Your task to perform on an android device: Open Chrome and go to settings Image 0: 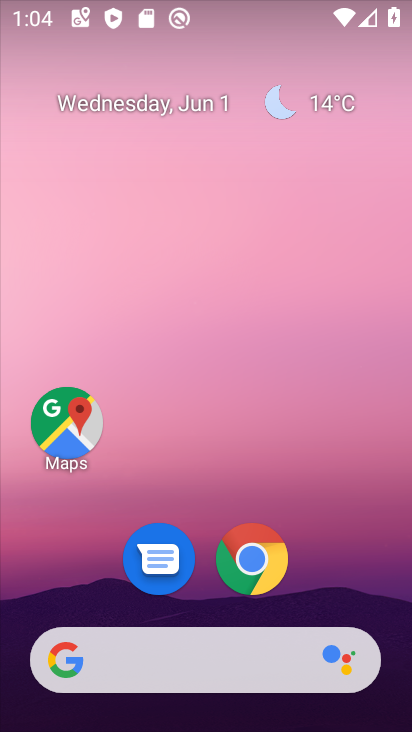
Step 0: click (264, 567)
Your task to perform on an android device: Open Chrome and go to settings Image 1: 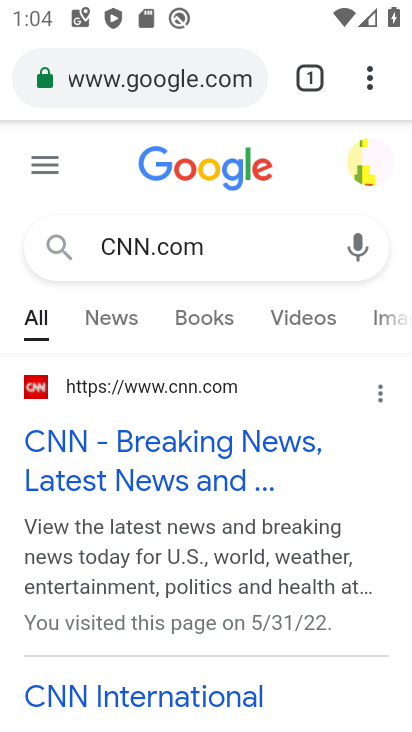
Step 1: click (366, 75)
Your task to perform on an android device: Open Chrome and go to settings Image 2: 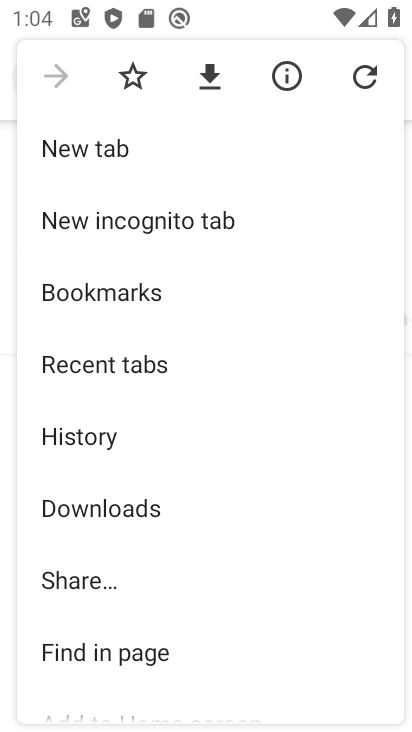
Step 2: drag from (237, 645) to (261, 360)
Your task to perform on an android device: Open Chrome and go to settings Image 3: 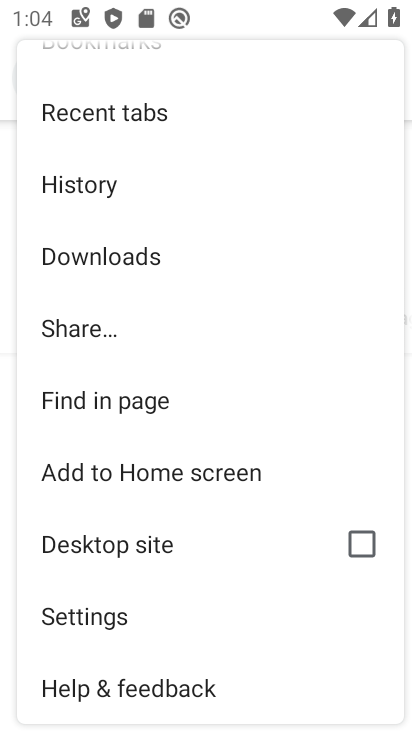
Step 3: click (83, 611)
Your task to perform on an android device: Open Chrome and go to settings Image 4: 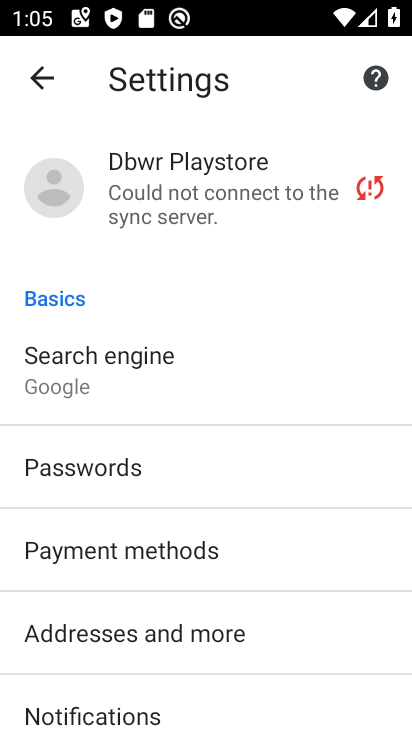
Step 4: task complete